Your task to perform on an android device: Find coffee shops on Maps Image 0: 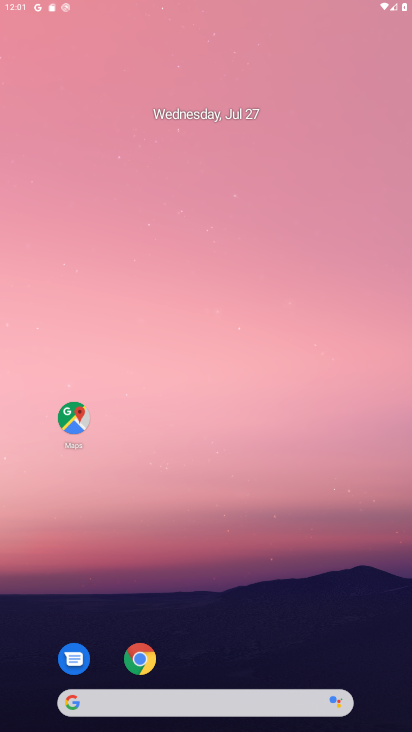
Step 0: press home button
Your task to perform on an android device: Find coffee shops on Maps Image 1: 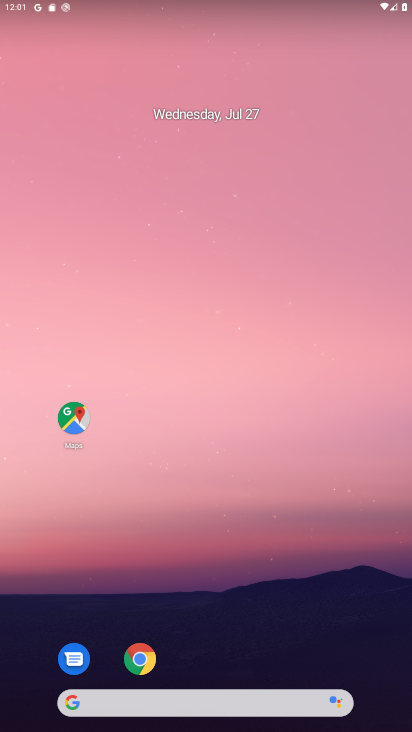
Step 1: drag from (252, 695) to (296, 67)
Your task to perform on an android device: Find coffee shops on Maps Image 2: 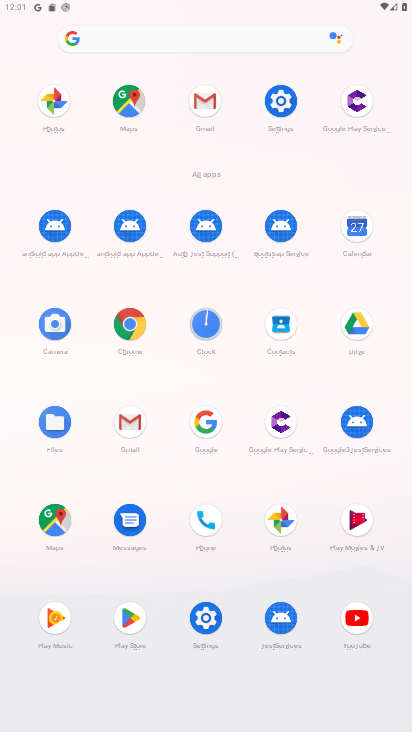
Step 2: click (54, 518)
Your task to perform on an android device: Find coffee shops on Maps Image 3: 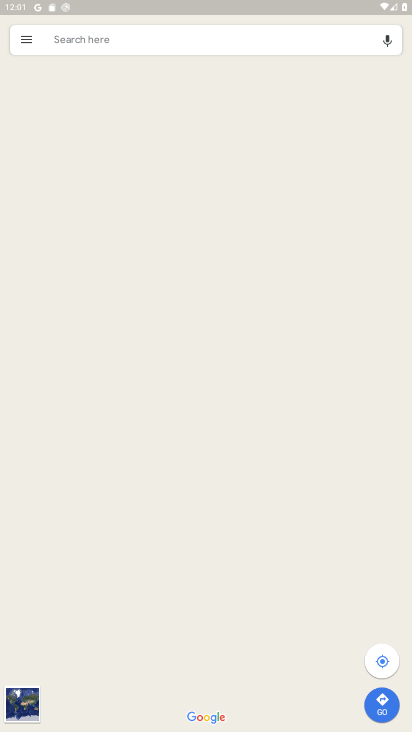
Step 3: click (275, 45)
Your task to perform on an android device: Find coffee shops on Maps Image 4: 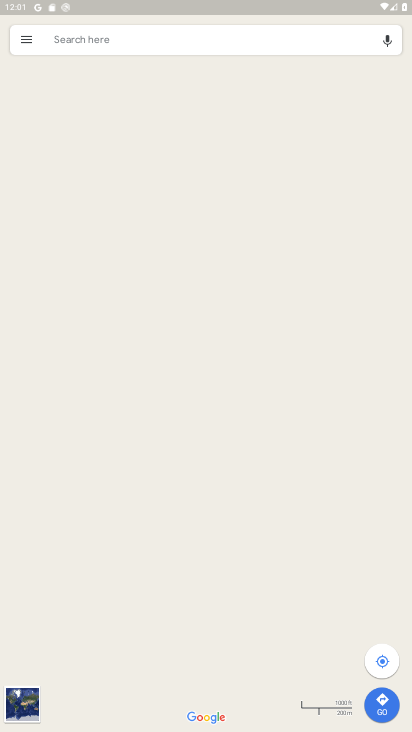
Step 4: click (275, 45)
Your task to perform on an android device: Find coffee shops on Maps Image 5: 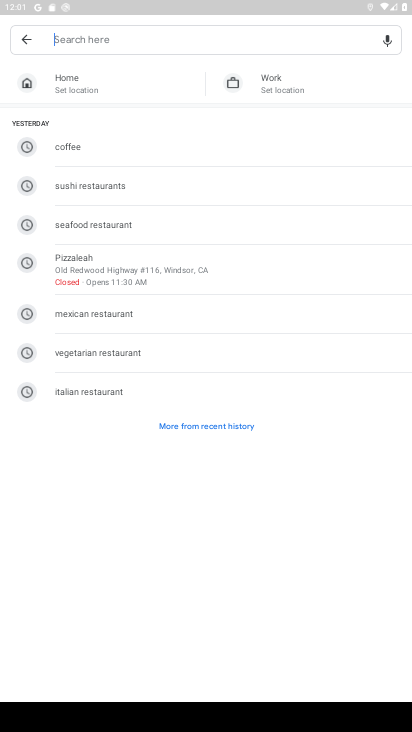
Step 5: type "coffee shops"
Your task to perform on an android device: Find coffee shops on Maps Image 6: 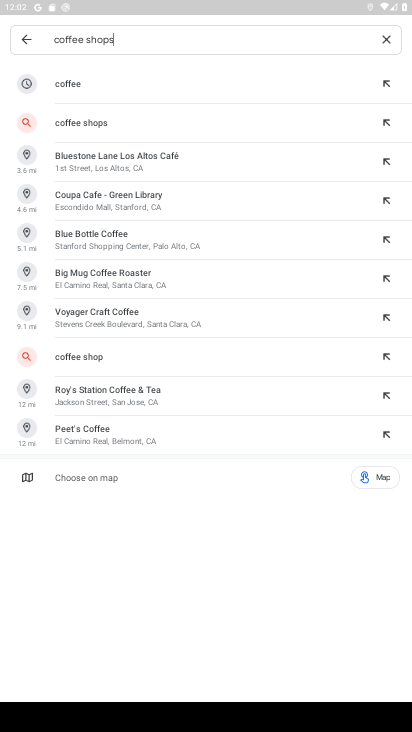
Step 6: click (262, 123)
Your task to perform on an android device: Find coffee shops on Maps Image 7: 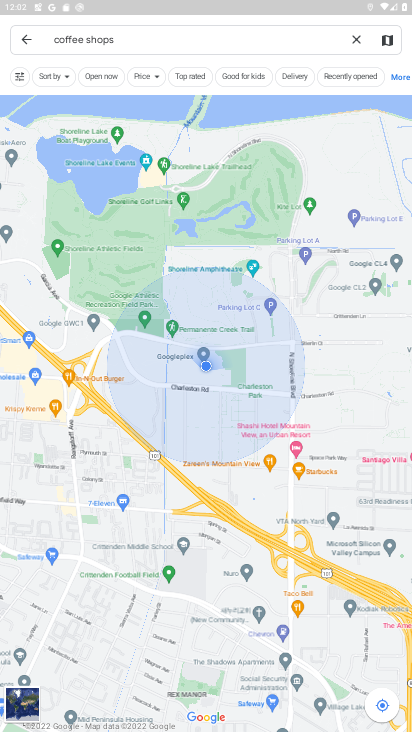
Step 7: task complete